Your task to perform on an android device: Find coffee shops on Maps Image 0: 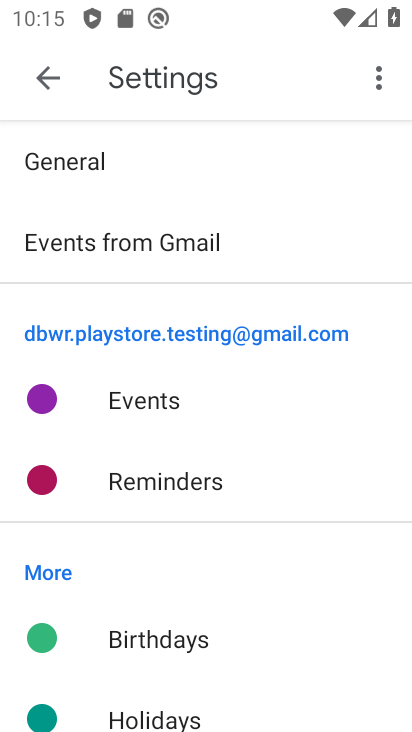
Step 0: press back button
Your task to perform on an android device: Find coffee shops on Maps Image 1: 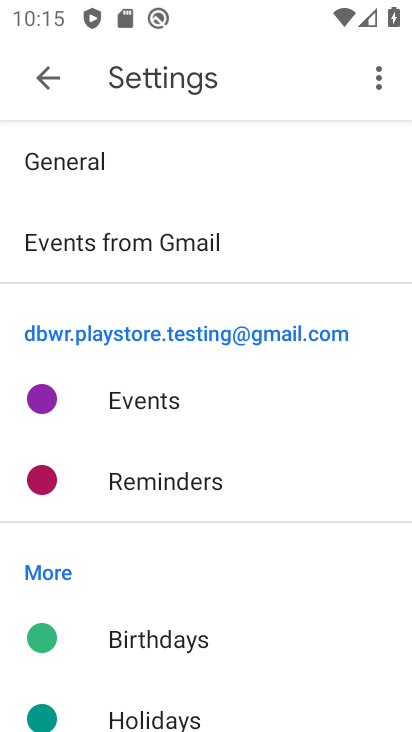
Step 1: press back button
Your task to perform on an android device: Find coffee shops on Maps Image 2: 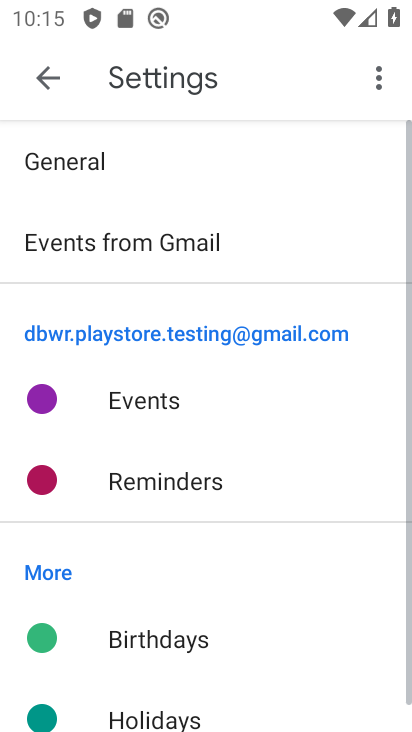
Step 2: press back button
Your task to perform on an android device: Find coffee shops on Maps Image 3: 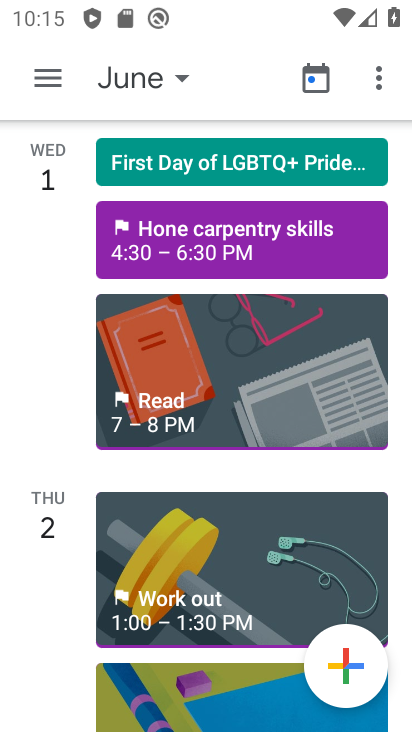
Step 3: press home button
Your task to perform on an android device: Find coffee shops on Maps Image 4: 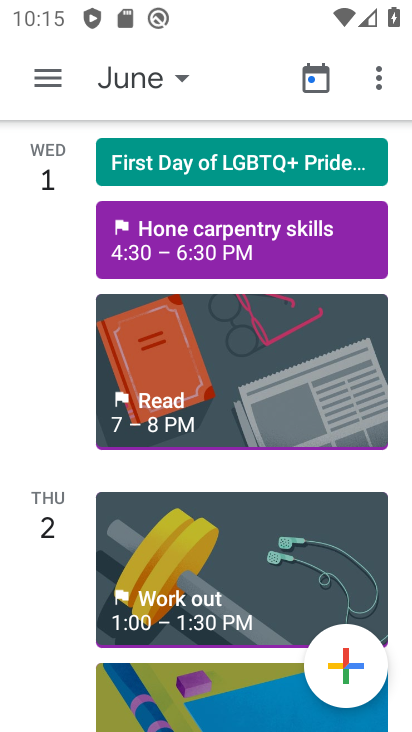
Step 4: press home button
Your task to perform on an android device: Find coffee shops on Maps Image 5: 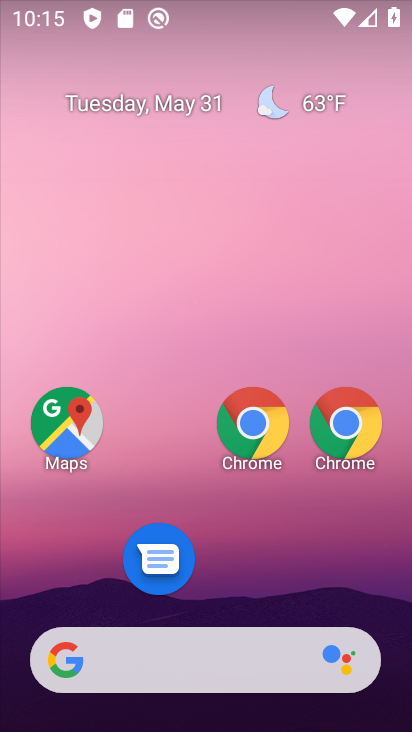
Step 5: drag from (268, 684) to (202, 72)
Your task to perform on an android device: Find coffee shops on Maps Image 6: 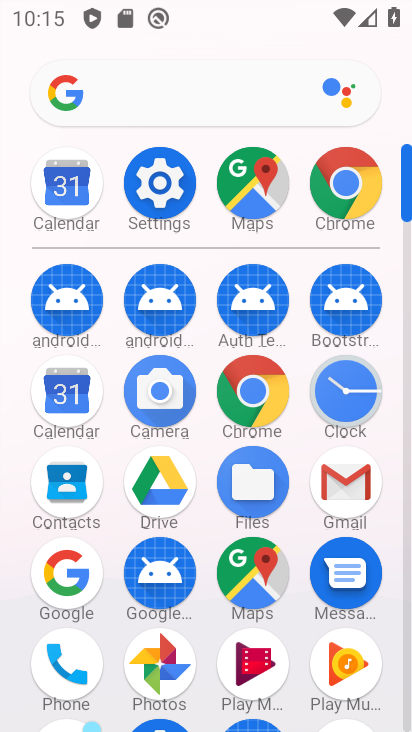
Step 6: drag from (234, 575) to (155, 20)
Your task to perform on an android device: Find coffee shops on Maps Image 7: 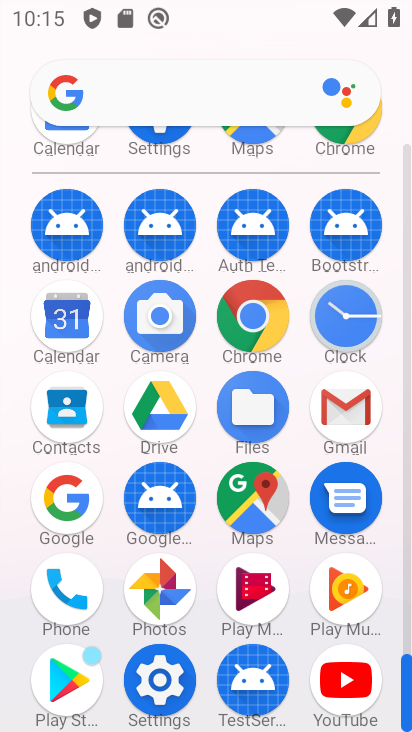
Step 7: click (242, 498)
Your task to perform on an android device: Find coffee shops on Maps Image 8: 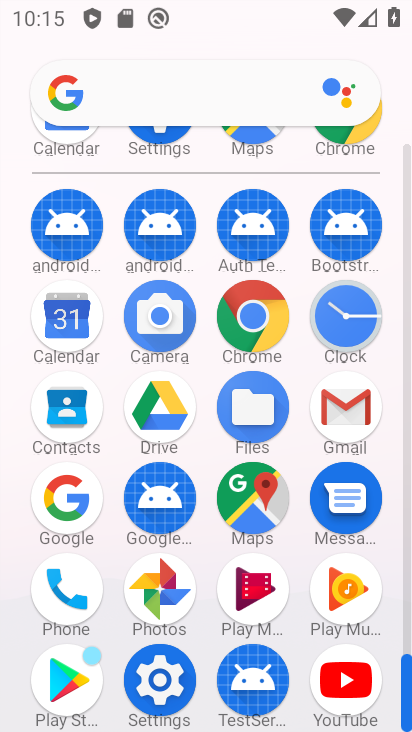
Step 8: click (241, 497)
Your task to perform on an android device: Find coffee shops on Maps Image 9: 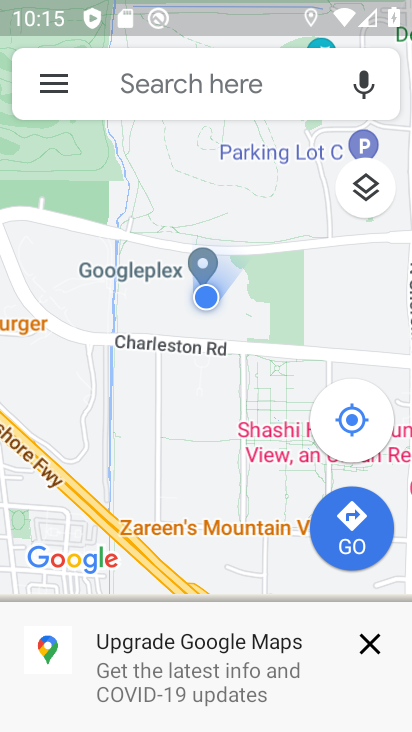
Step 9: click (122, 91)
Your task to perform on an android device: Find coffee shops on Maps Image 10: 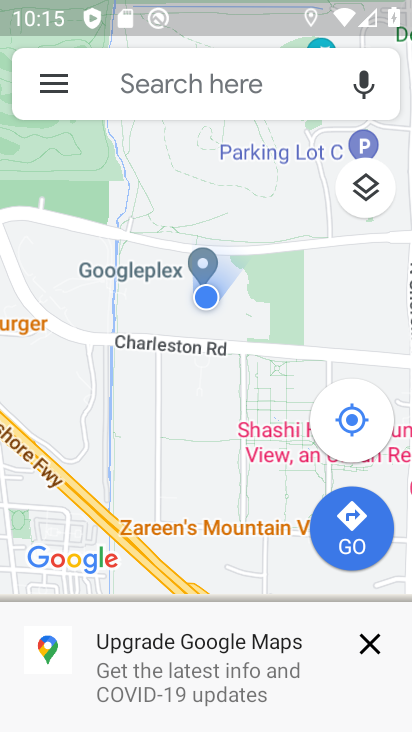
Step 10: click (125, 81)
Your task to perform on an android device: Find coffee shops on Maps Image 11: 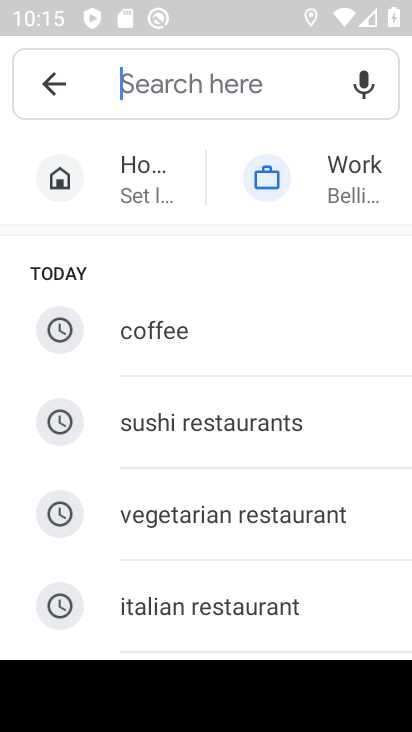
Step 11: click (144, 334)
Your task to perform on an android device: Find coffee shops on Maps Image 12: 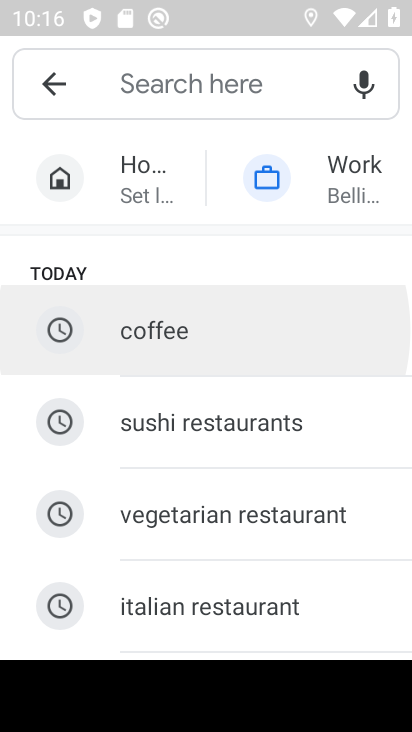
Step 12: click (148, 336)
Your task to perform on an android device: Find coffee shops on Maps Image 13: 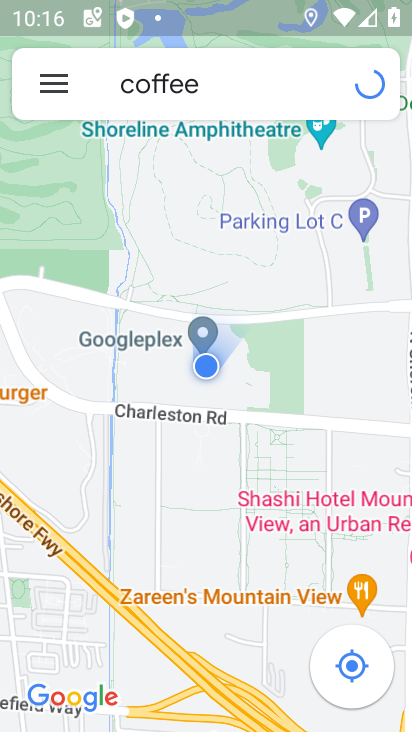
Step 13: task complete